Your task to perform on an android device: turn off location history Image 0: 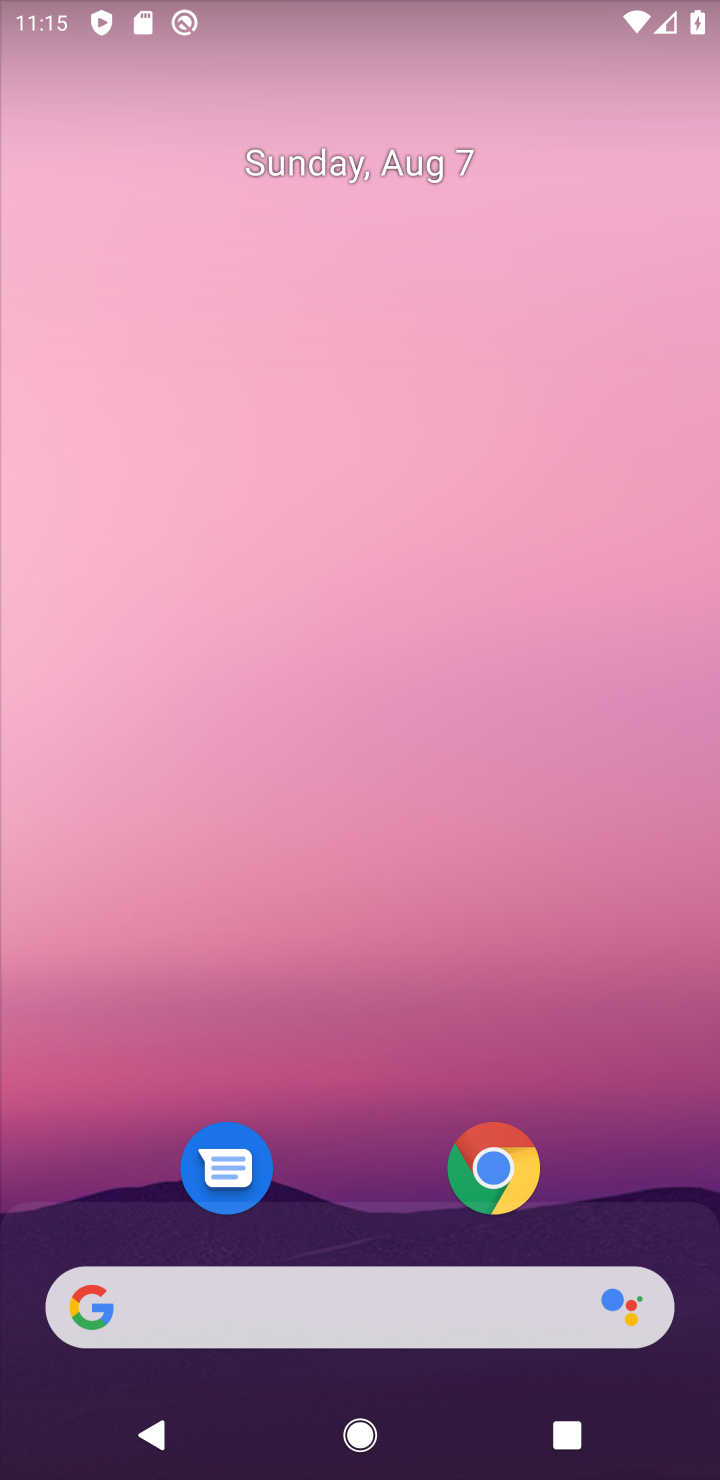
Step 0: drag from (376, 1246) to (355, 205)
Your task to perform on an android device: turn off location history Image 1: 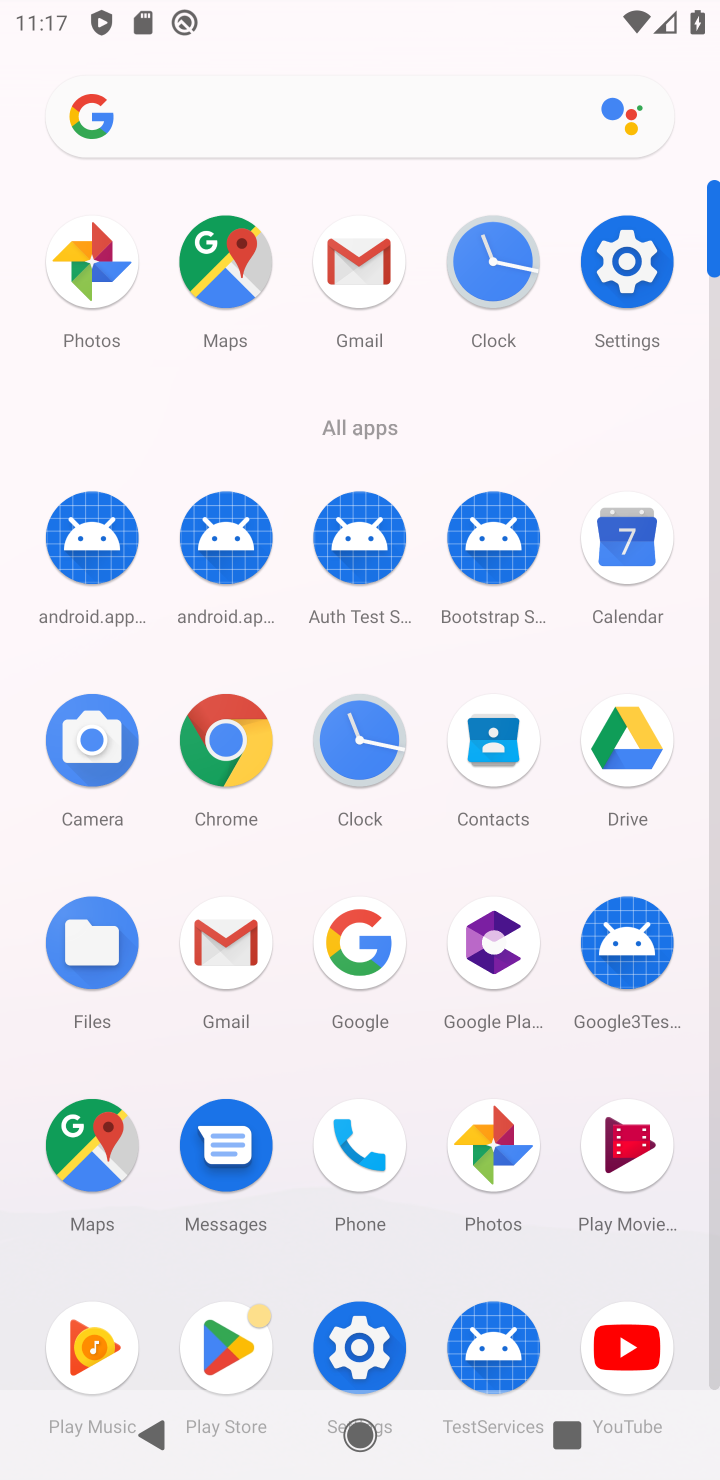
Step 1: click (621, 262)
Your task to perform on an android device: turn off location history Image 2: 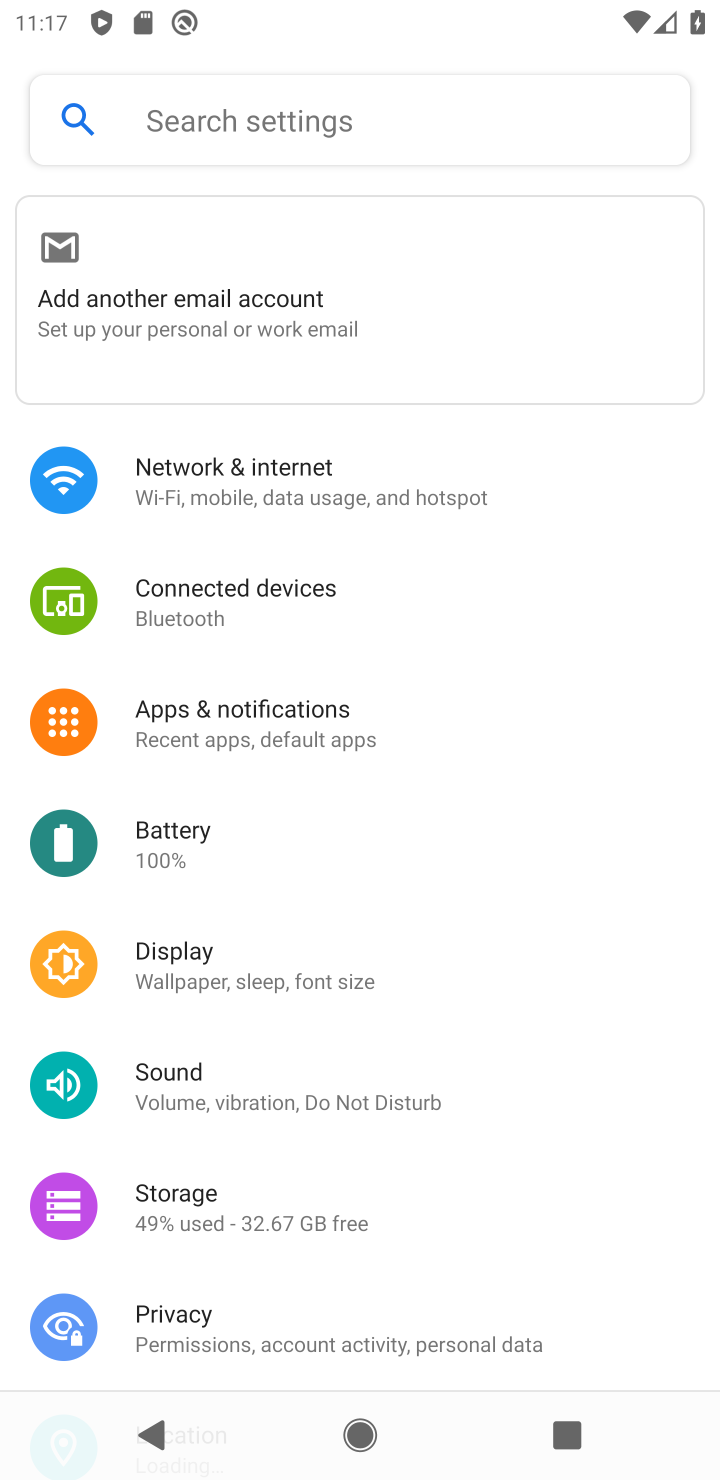
Step 2: drag from (504, 1111) to (437, 323)
Your task to perform on an android device: turn off location history Image 3: 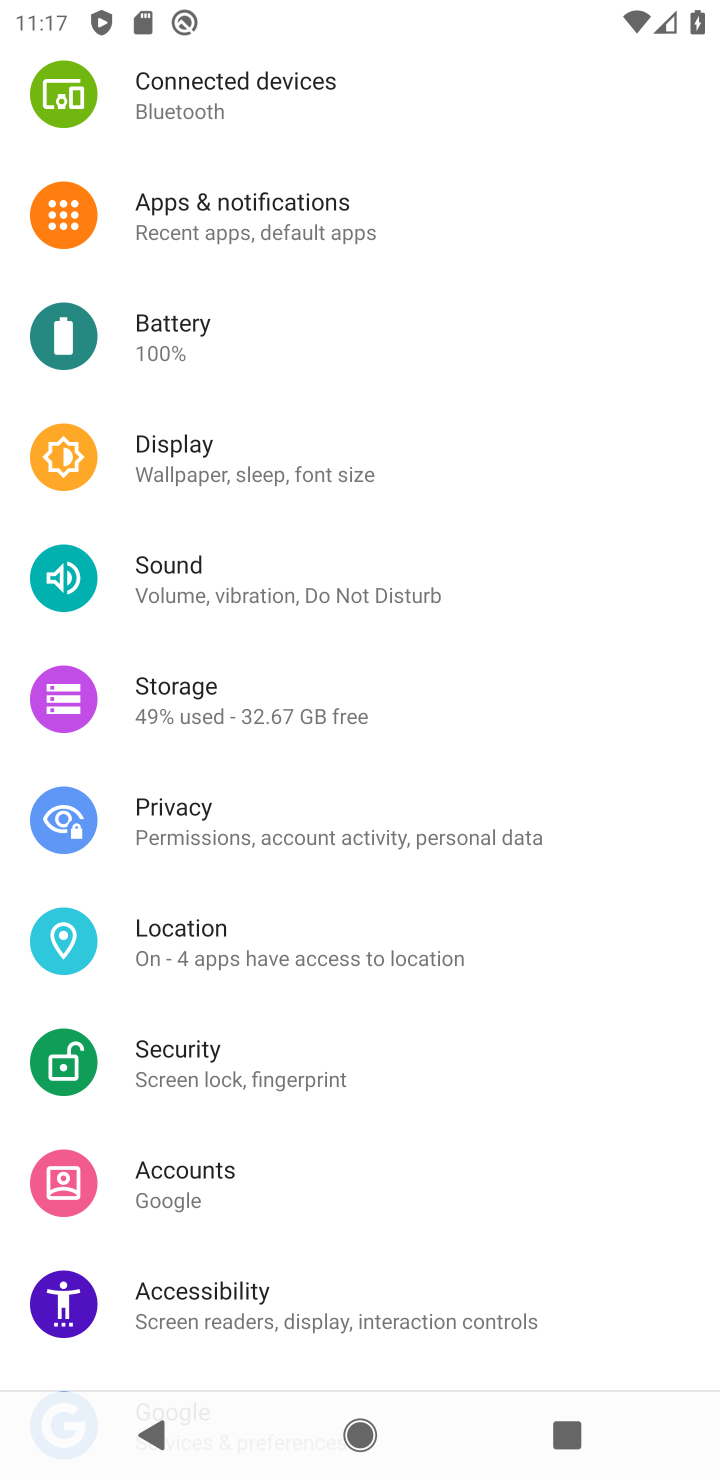
Step 3: click (182, 953)
Your task to perform on an android device: turn off location history Image 4: 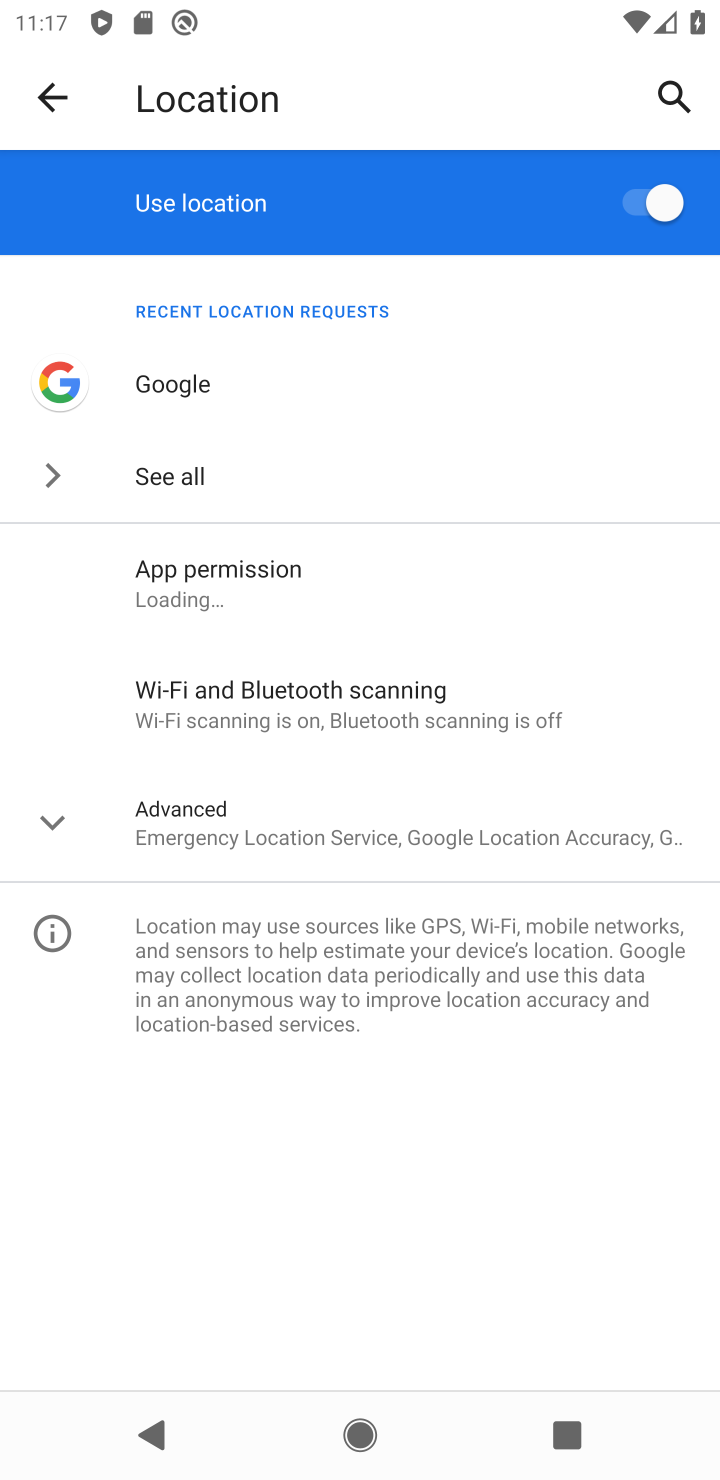
Step 4: click (167, 822)
Your task to perform on an android device: turn off location history Image 5: 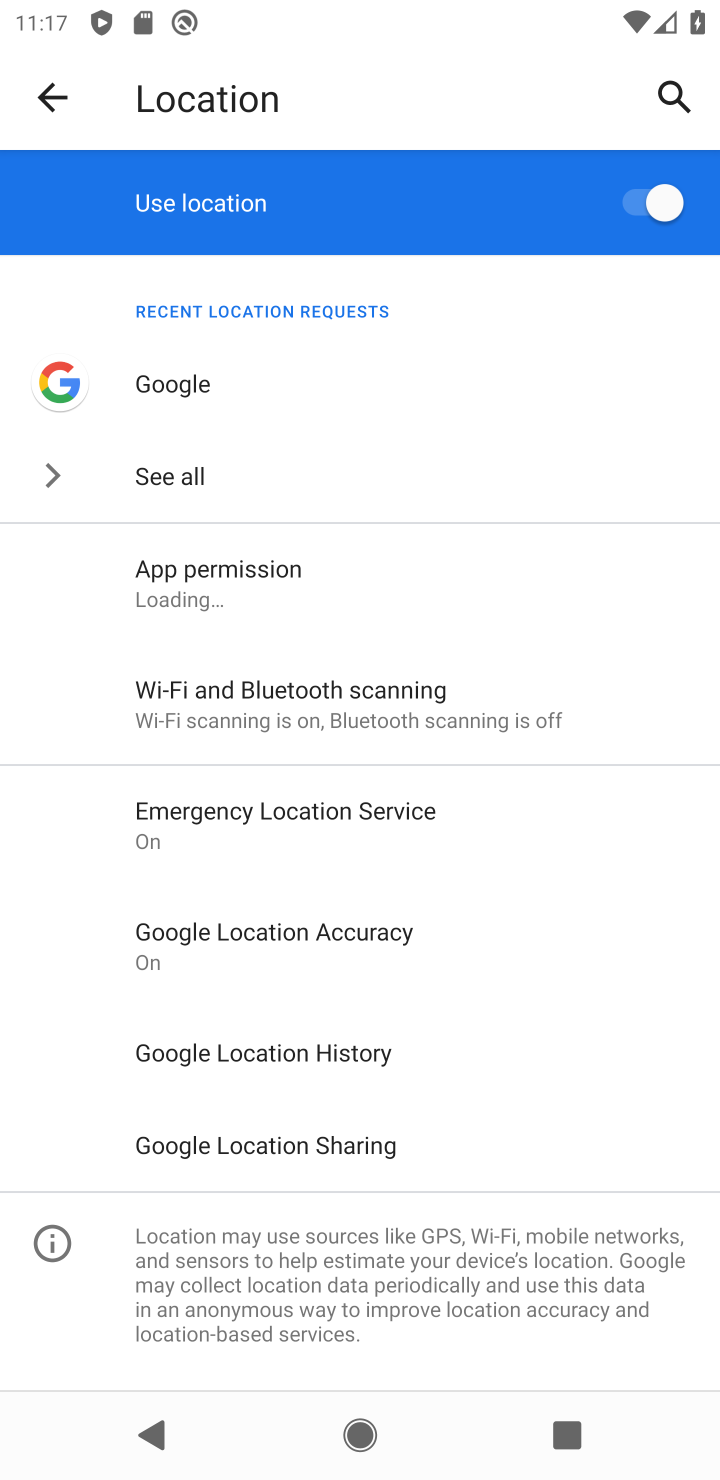
Step 5: click (313, 1064)
Your task to perform on an android device: turn off location history Image 6: 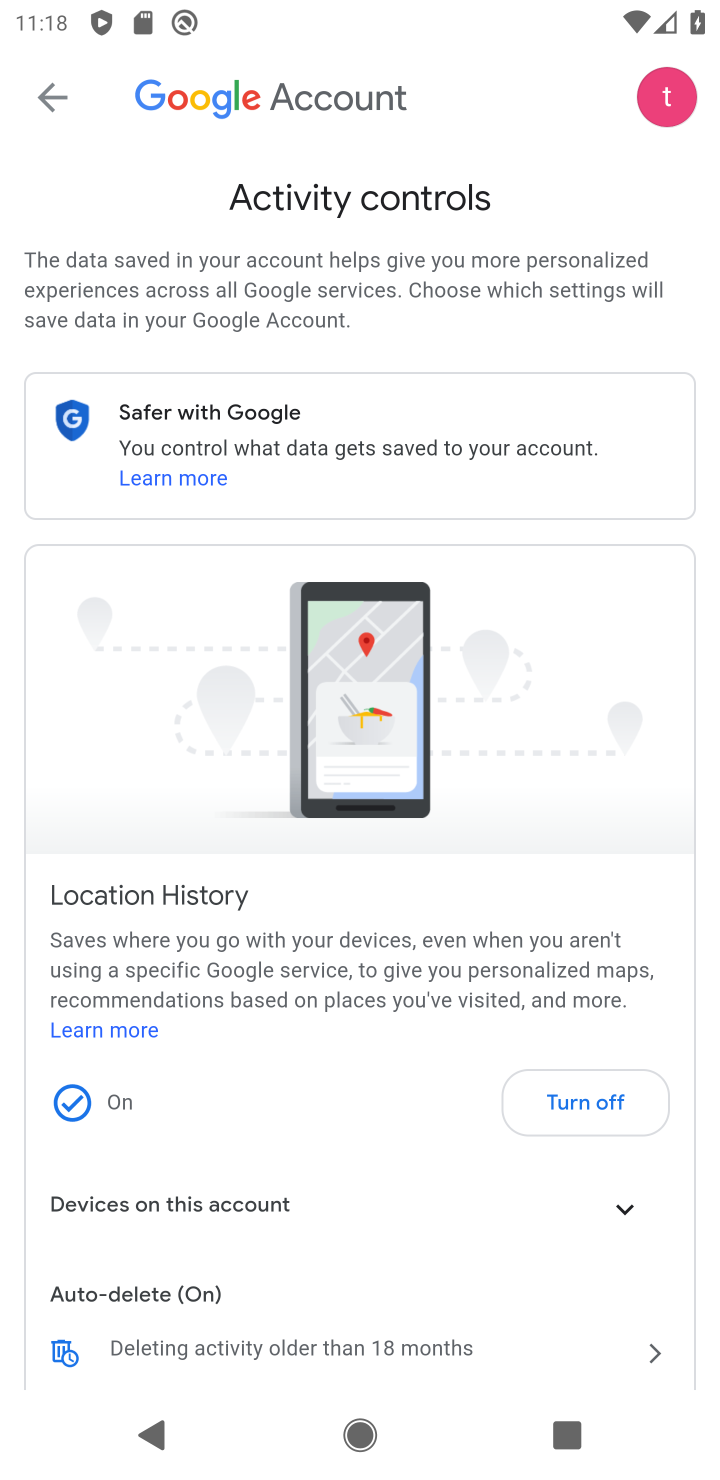
Step 6: click (588, 1102)
Your task to perform on an android device: turn off location history Image 7: 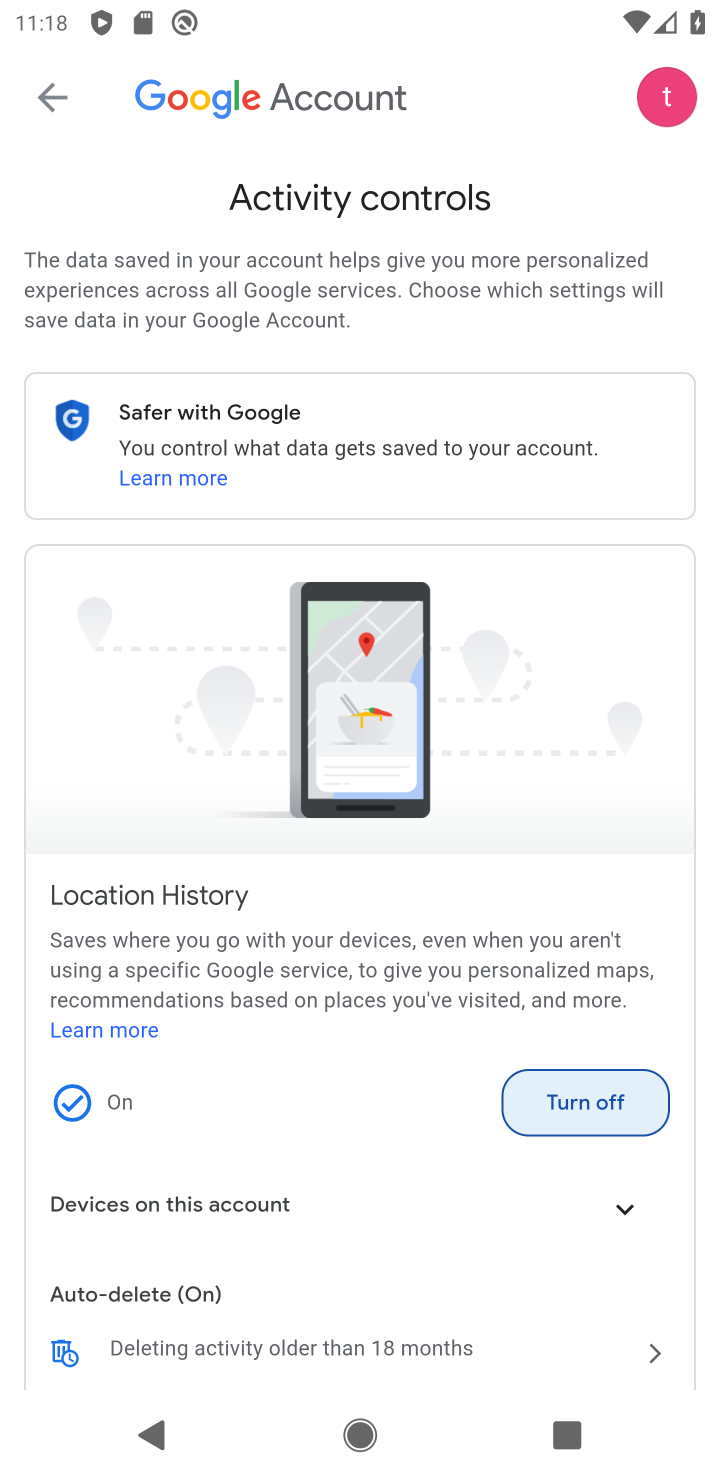
Step 7: click (573, 1110)
Your task to perform on an android device: turn off location history Image 8: 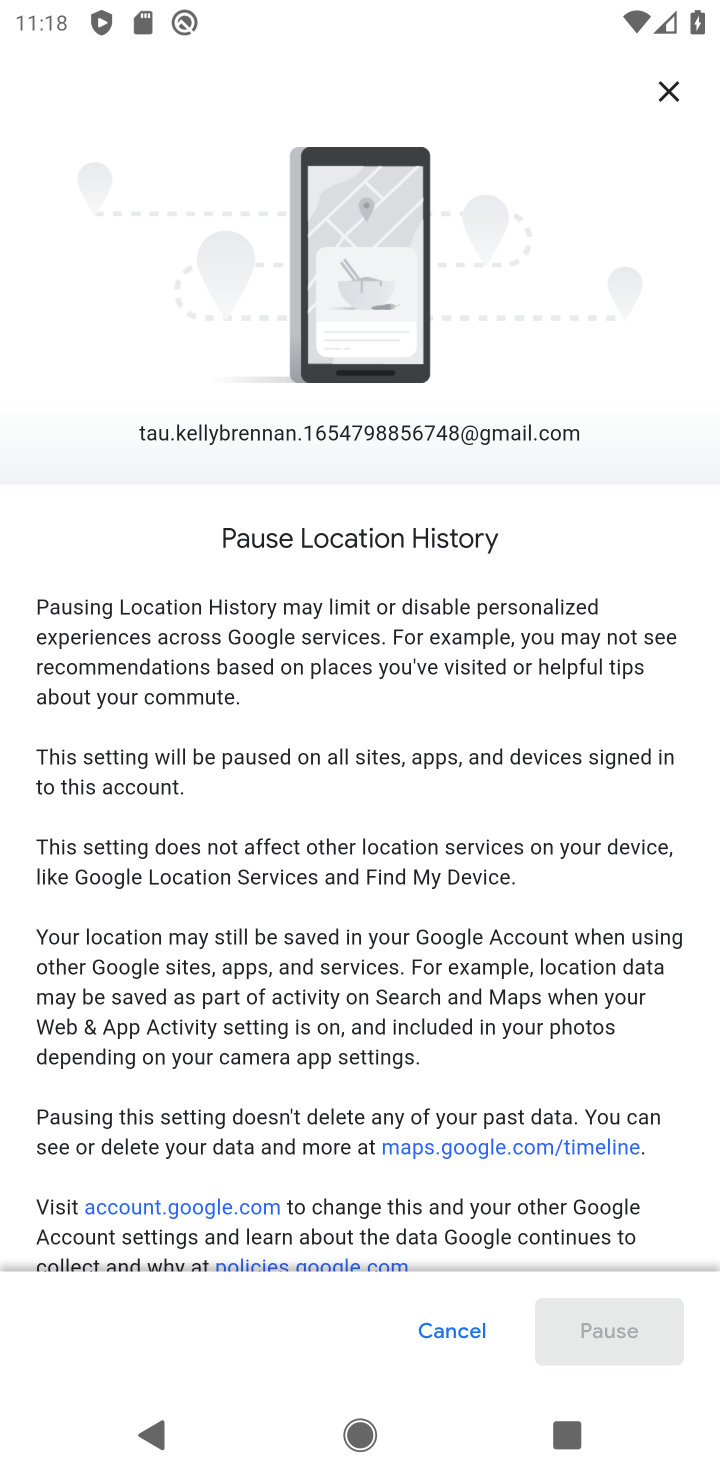
Step 8: drag from (609, 1180) to (533, 267)
Your task to perform on an android device: turn off location history Image 9: 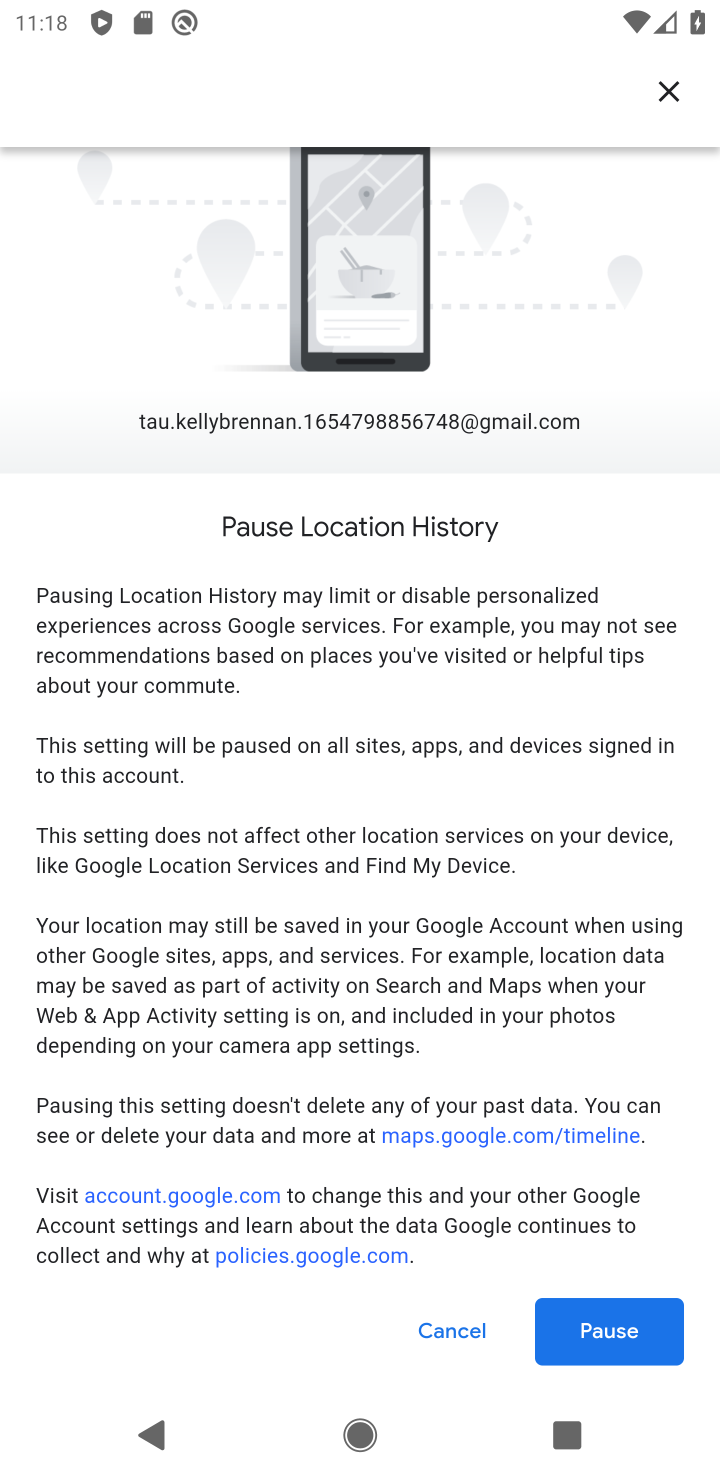
Step 9: click (600, 1347)
Your task to perform on an android device: turn off location history Image 10: 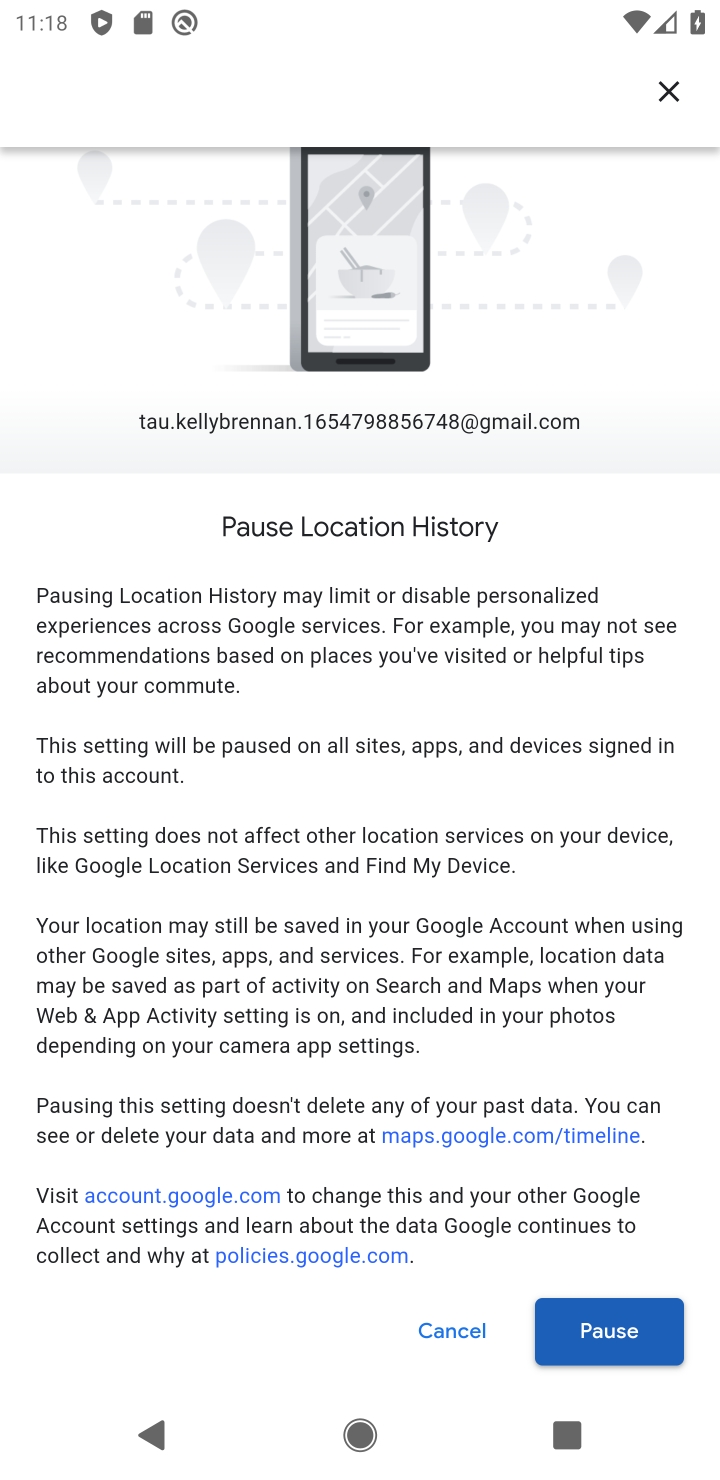
Step 10: click (615, 1332)
Your task to perform on an android device: turn off location history Image 11: 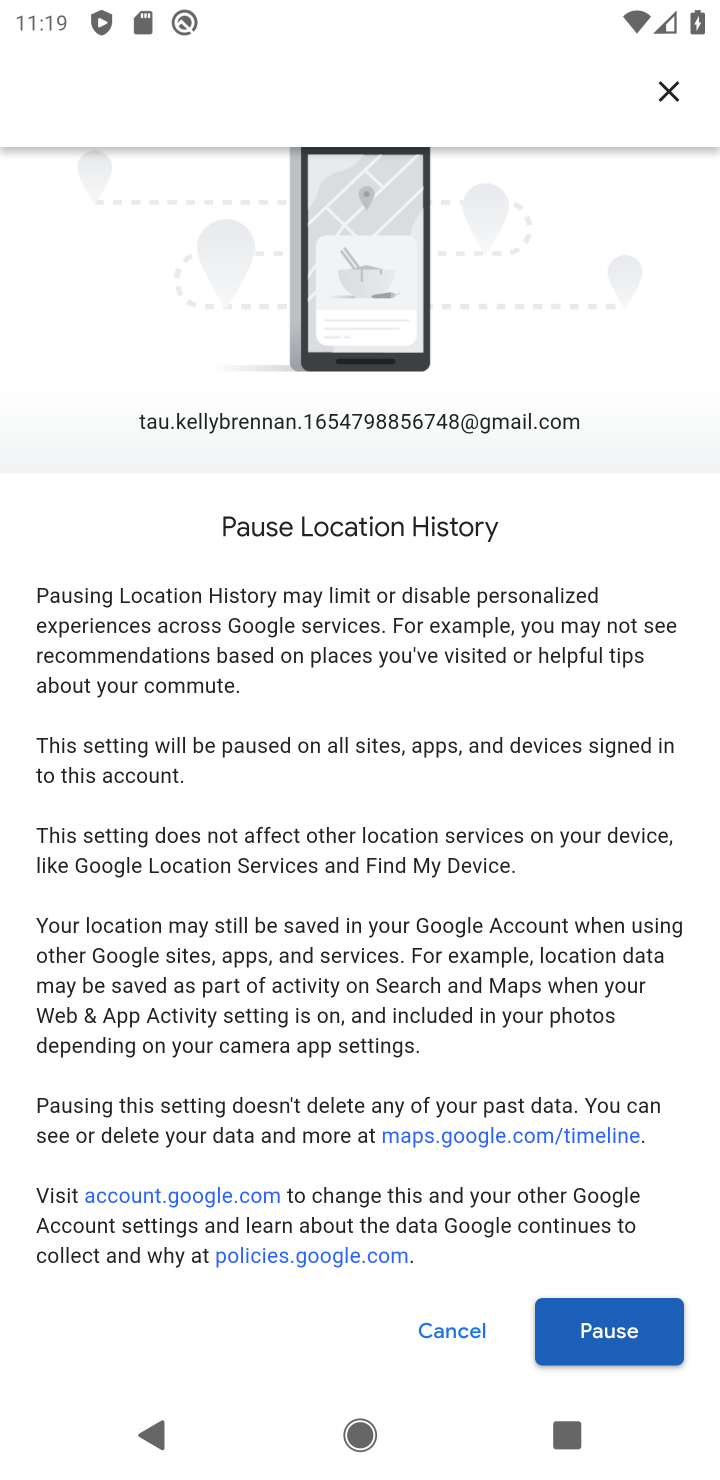
Step 11: click (615, 1332)
Your task to perform on an android device: turn off location history Image 12: 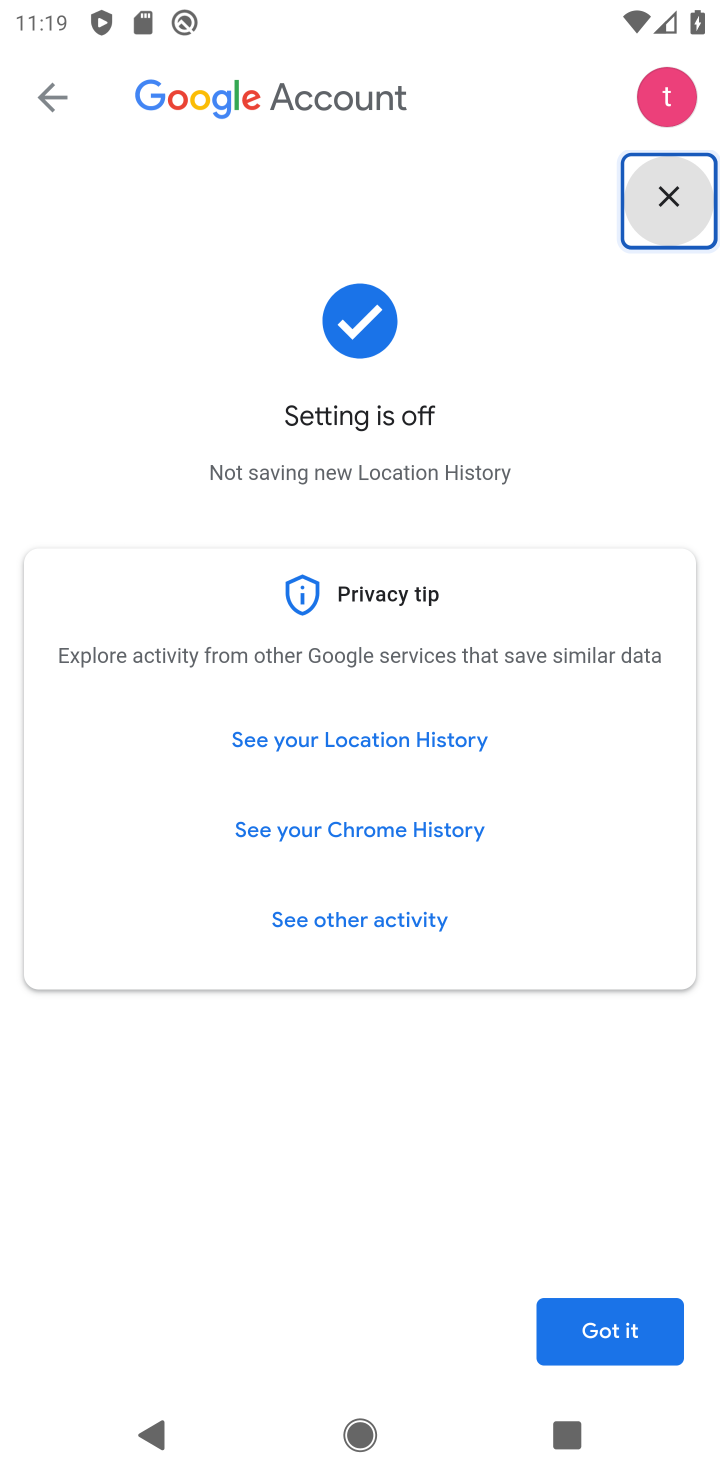
Step 12: click (615, 1332)
Your task to perform on an android device: turn off location history Image 13: 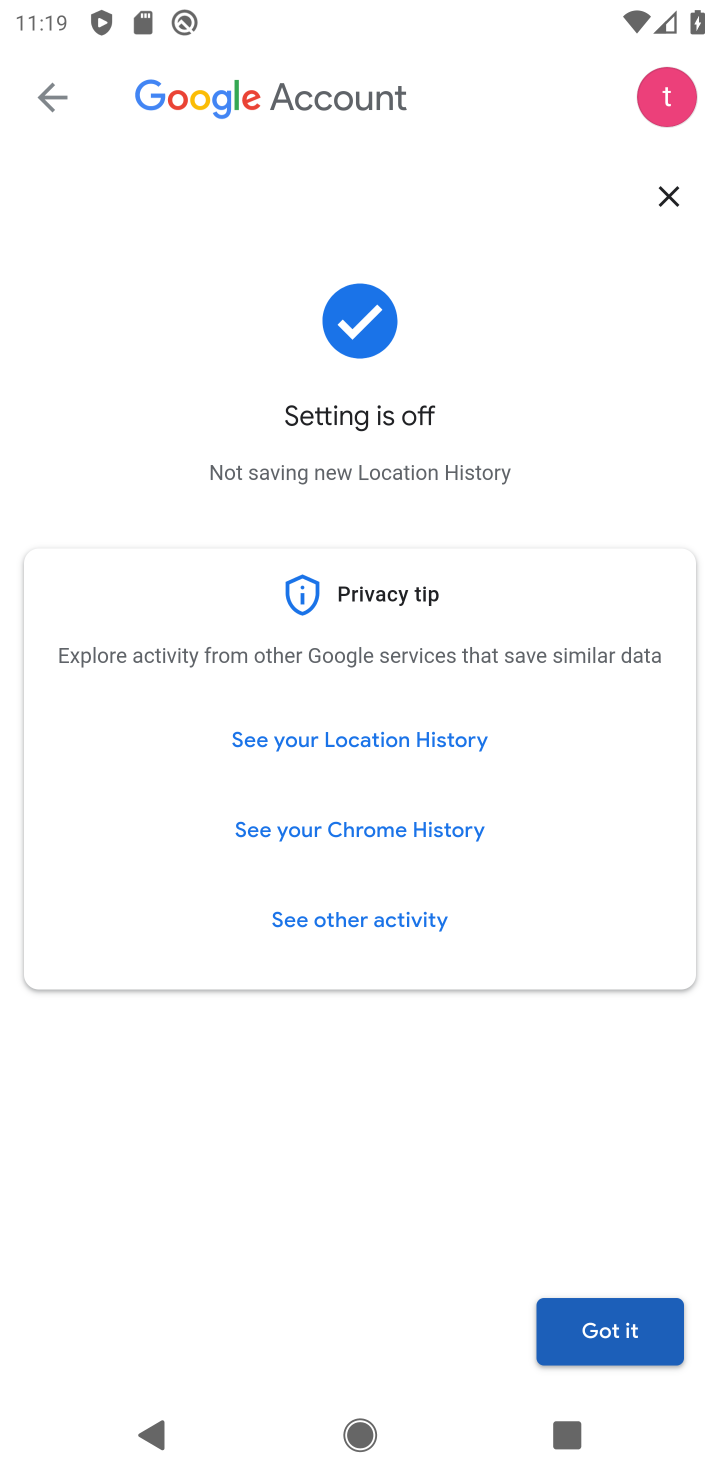
Step 13: click (615, 1332)
Your task to perform on an android device: turn off location history Image 14: 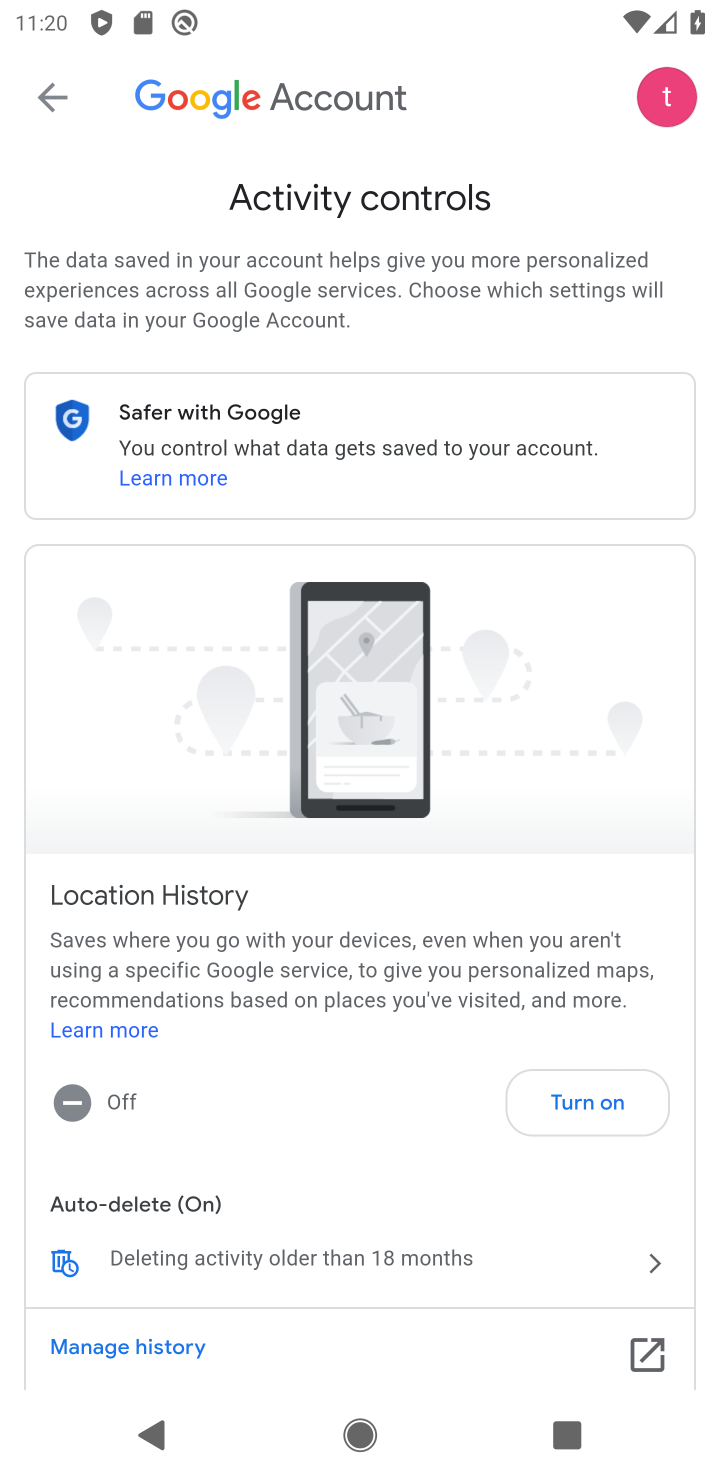
Step 14: task complete